Your task to perform on an android device: Add razer huntsman to the cart on ebay Image 0: 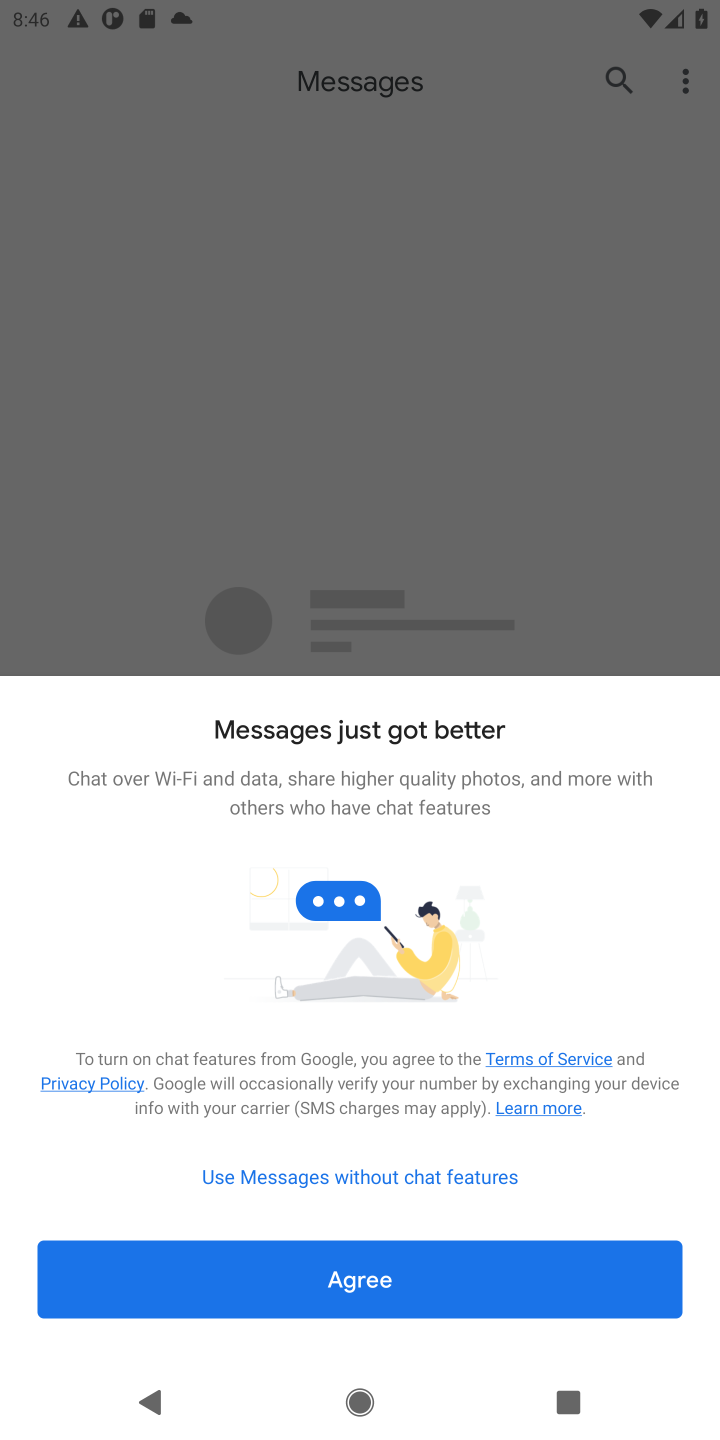
Step 0: press home button
Your task to perform on an android device: Add razer huntsman to the cart on ebay Image 1: 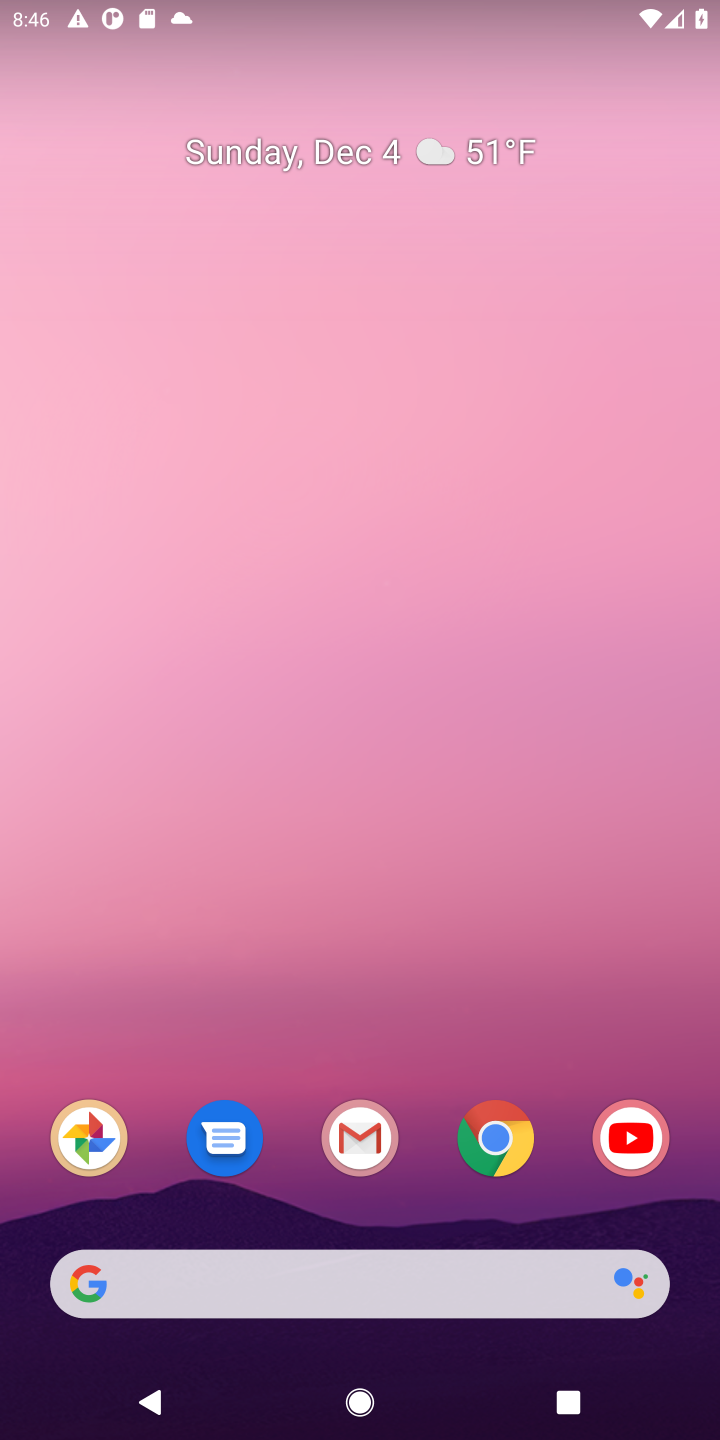
Step 1: click (484, 1151)
Your task to perform on an android device: Add razer huntsman to the cart on ebay Image 2: 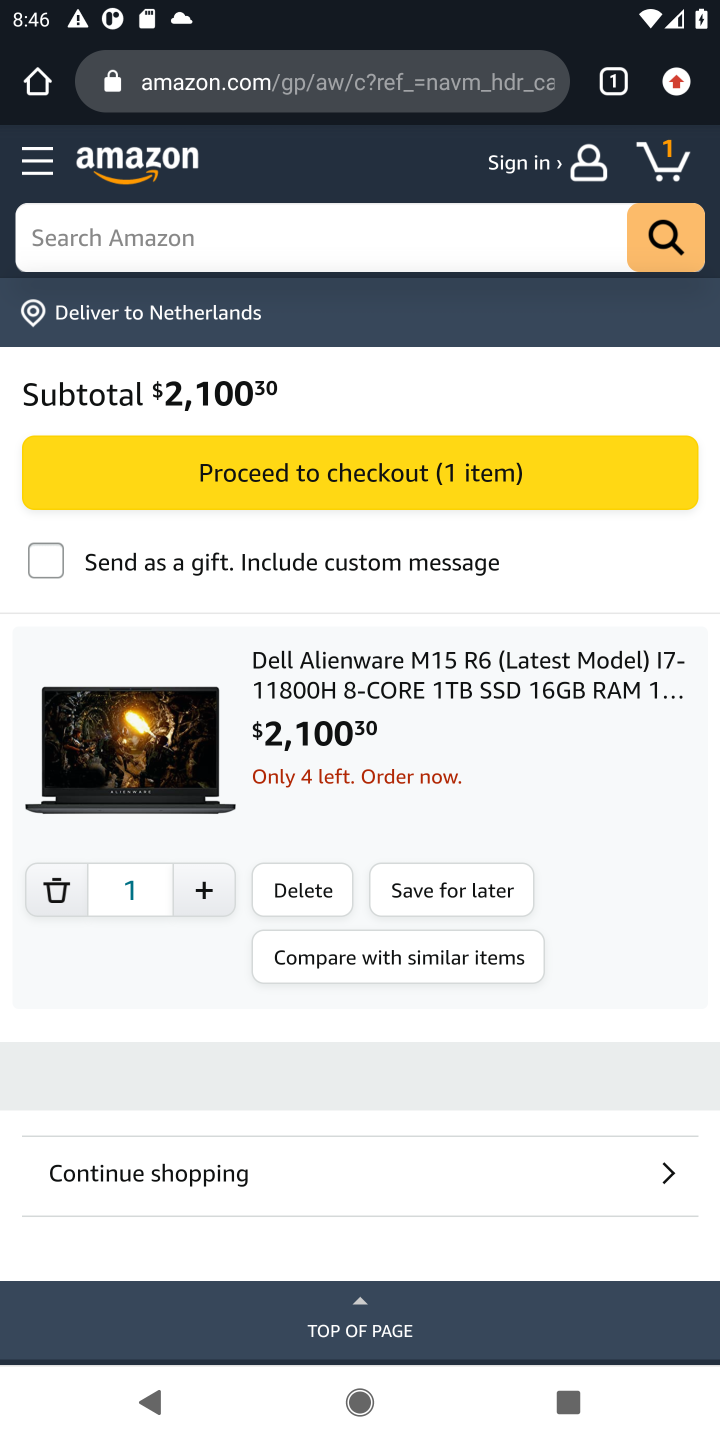
Step 2: click (341, 64)
Your task to perform on an android device: Add razer huntsman to the cart on ebay Image 3: 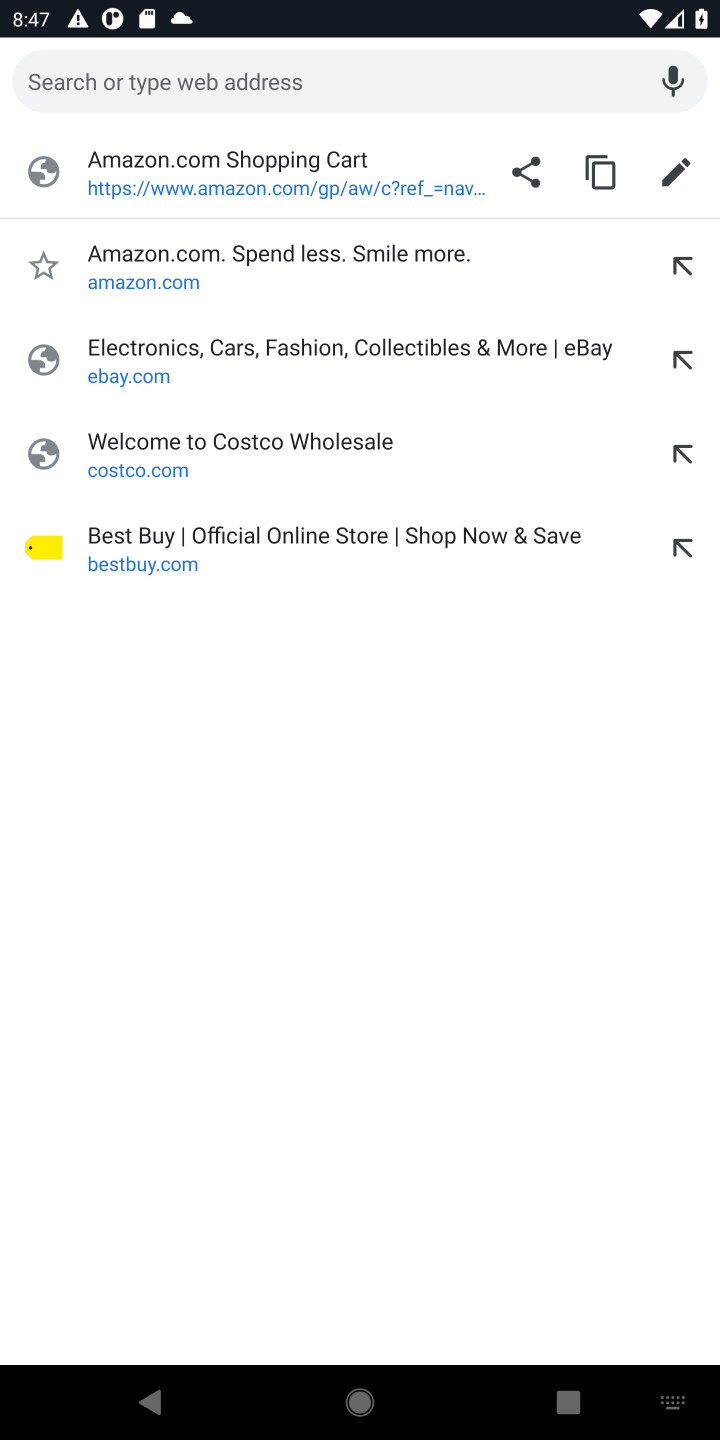
Step 3: press enter
Your task to perform on an android device: Add razer huntsman to the cart on ebay Image 4: 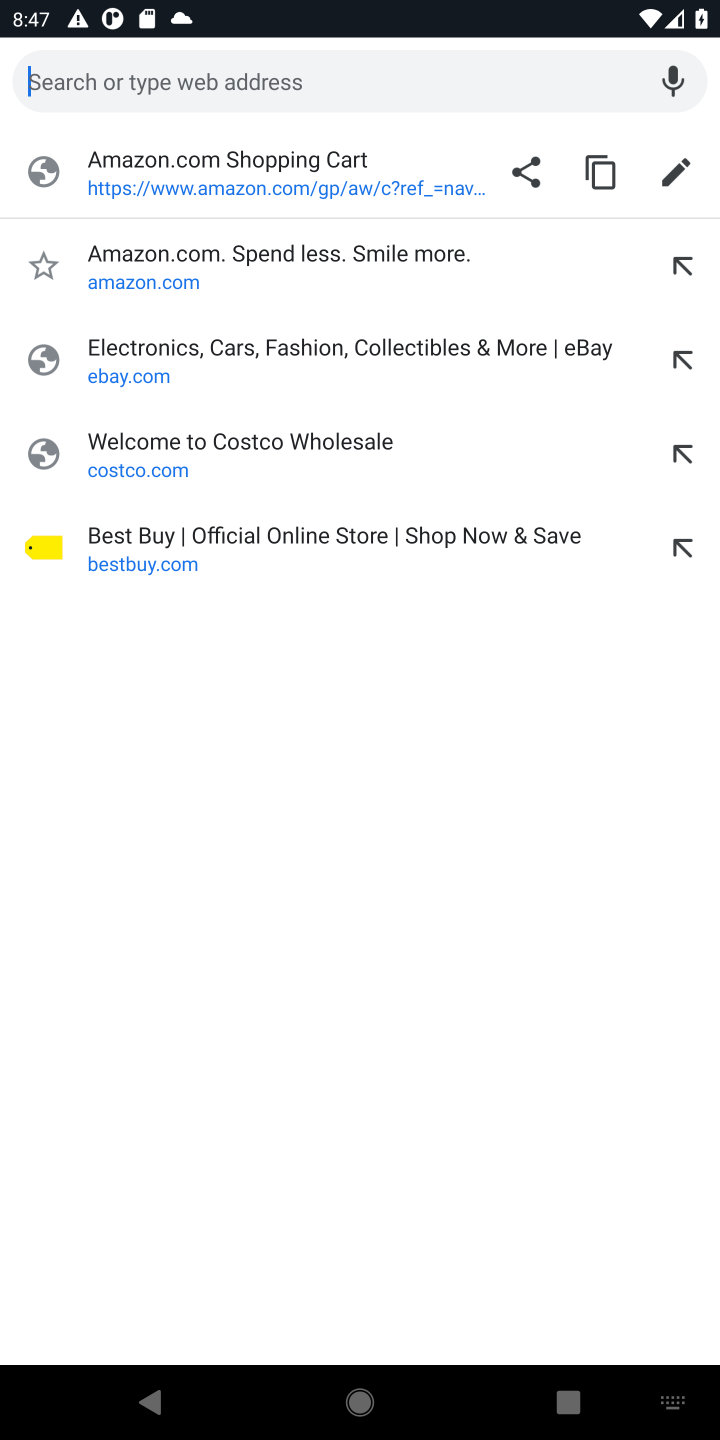
Step 4: type "ebay"
Your task to perform on an android device: Add razer huntsman to the cart on ebay Image 5: 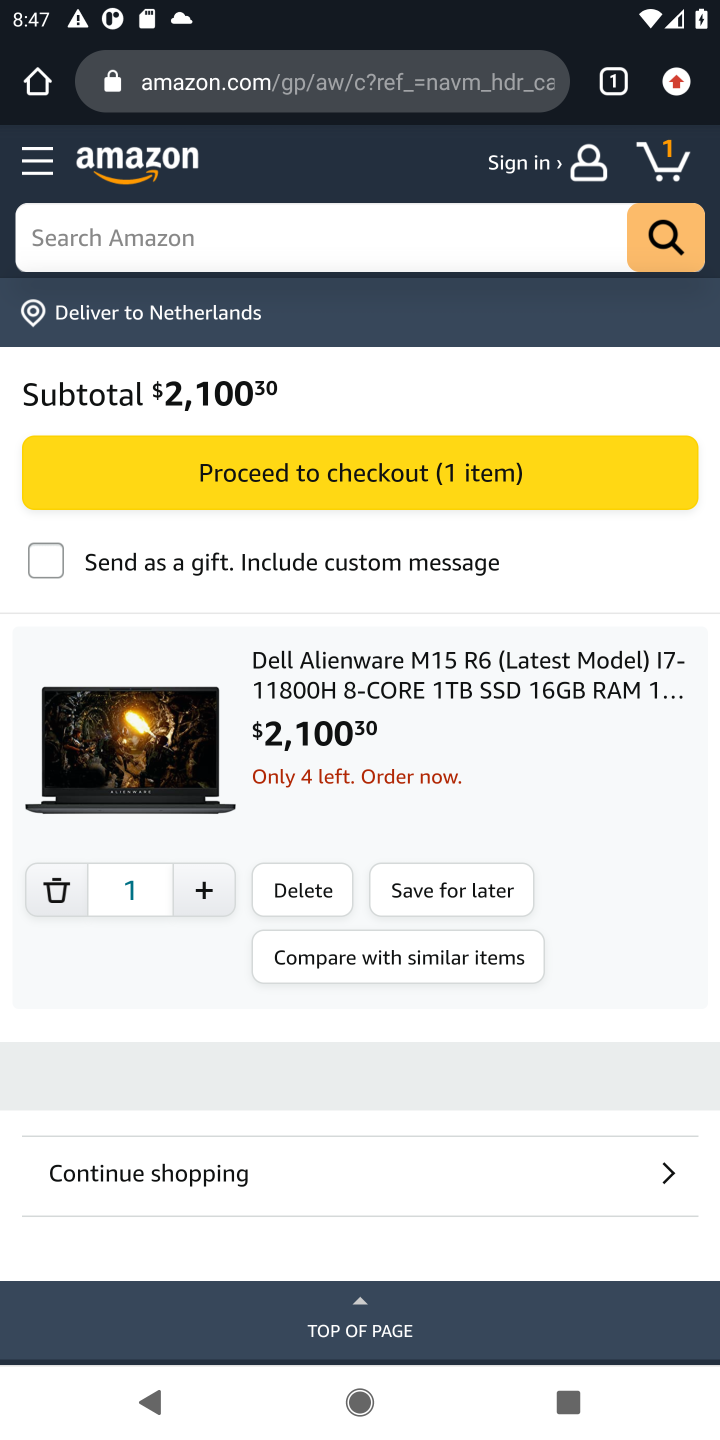
Step 5: click (424, 89)
Your task to perform on an android device: Add razer huntsman to the cart on ebay Image 6: 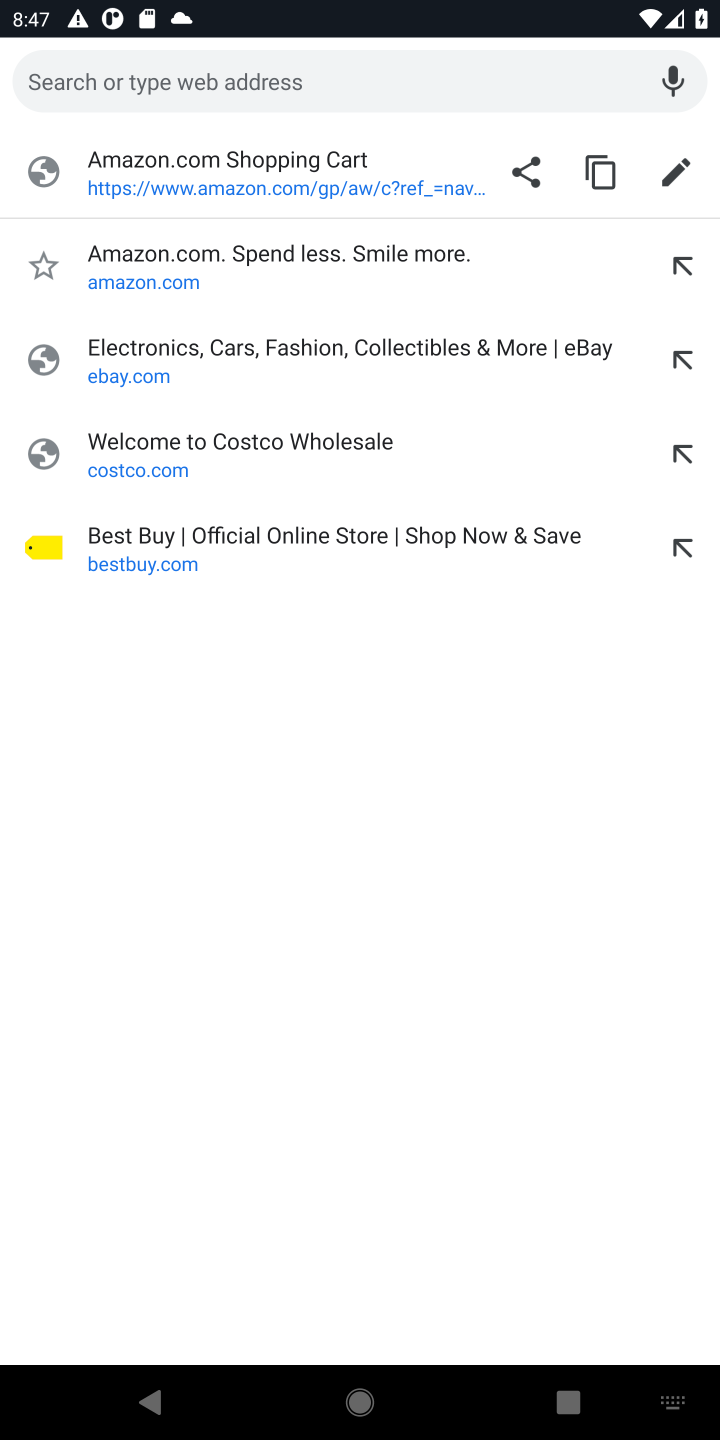
Step 6: click (218, 353)
Your task to perform on an android device: Add razer huntsman to the cart on ebay Image 7: 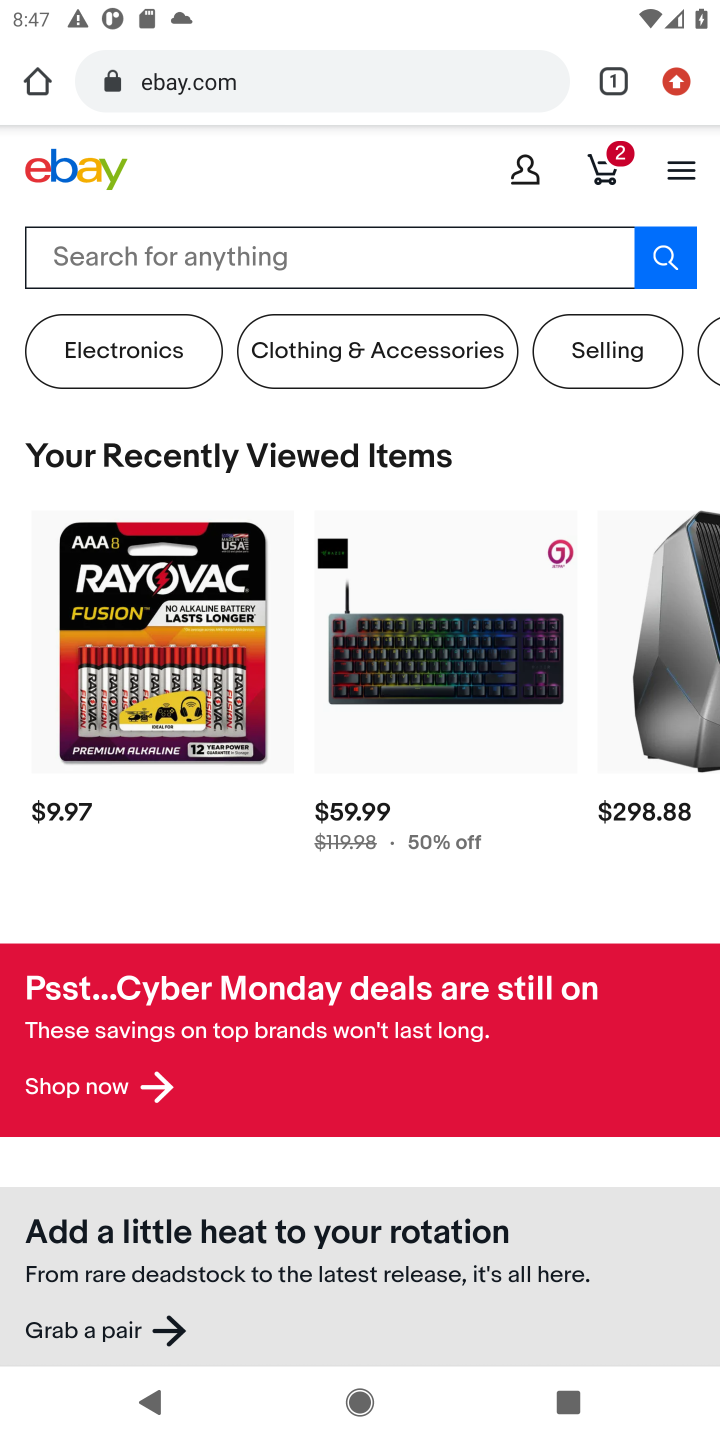
Step 7: click (470, 265)
Your task to perform on an android device: Add razer huntsman to the cart on ebay Image 8: 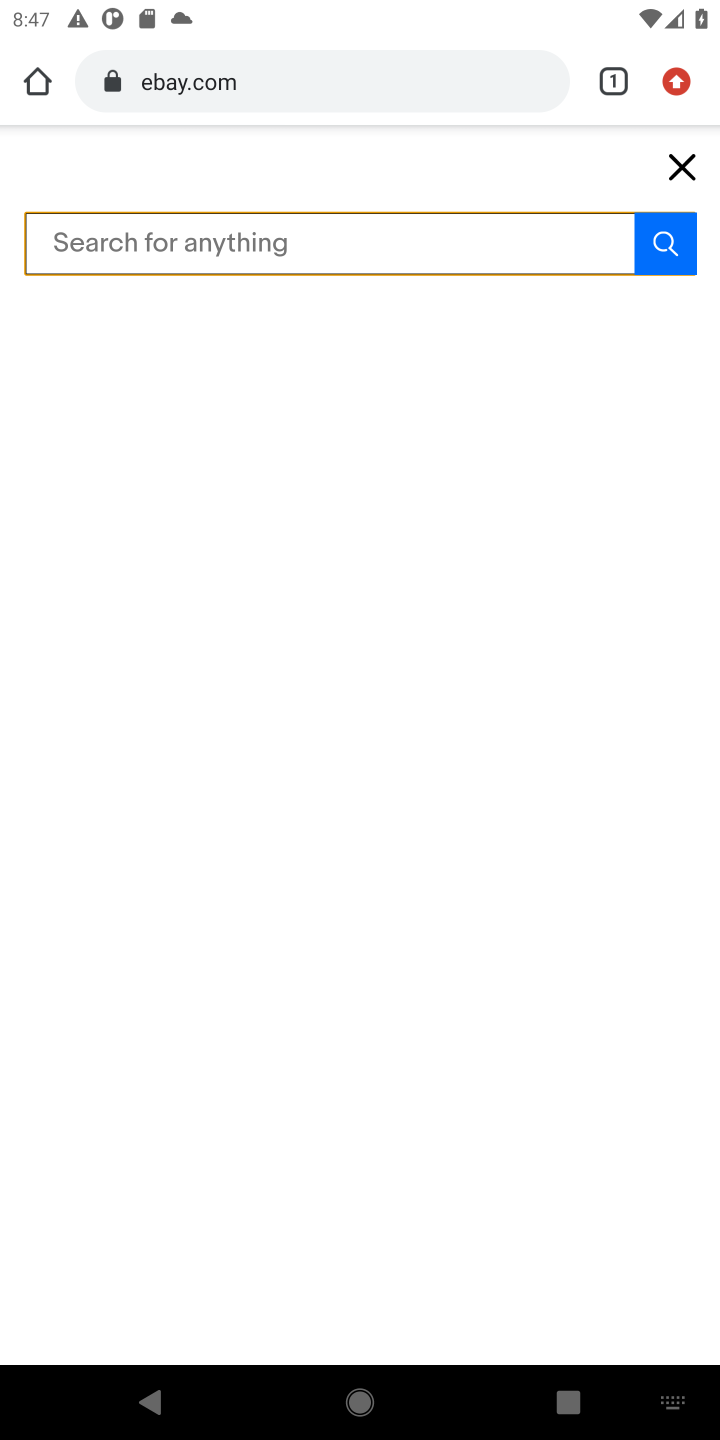
Step 8: type "razer huntsman"
Your task to perform on an android device: Add razer huntsman to the cart on ebay Image 9: 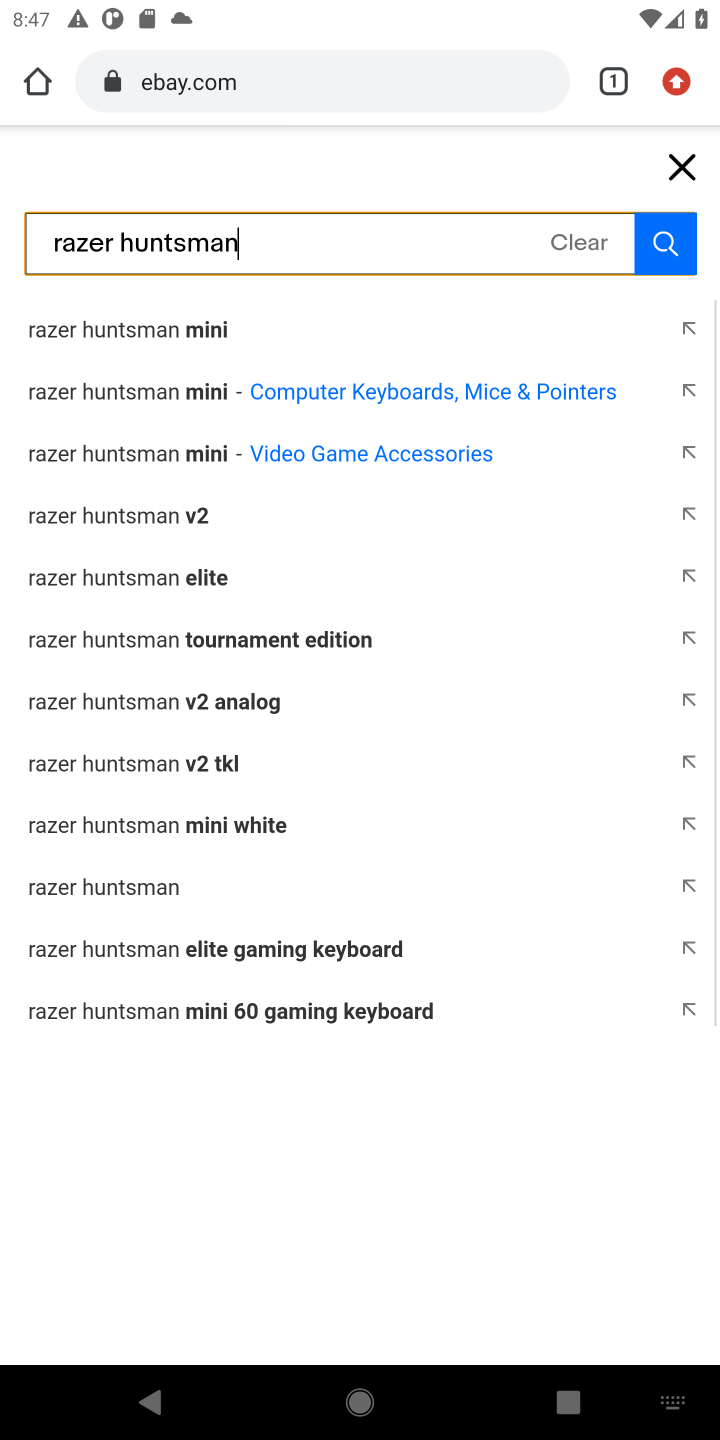
Step 9: press enter
Your task to perform on an android device: Add razer huntsman to the cart on ebay Image 10: 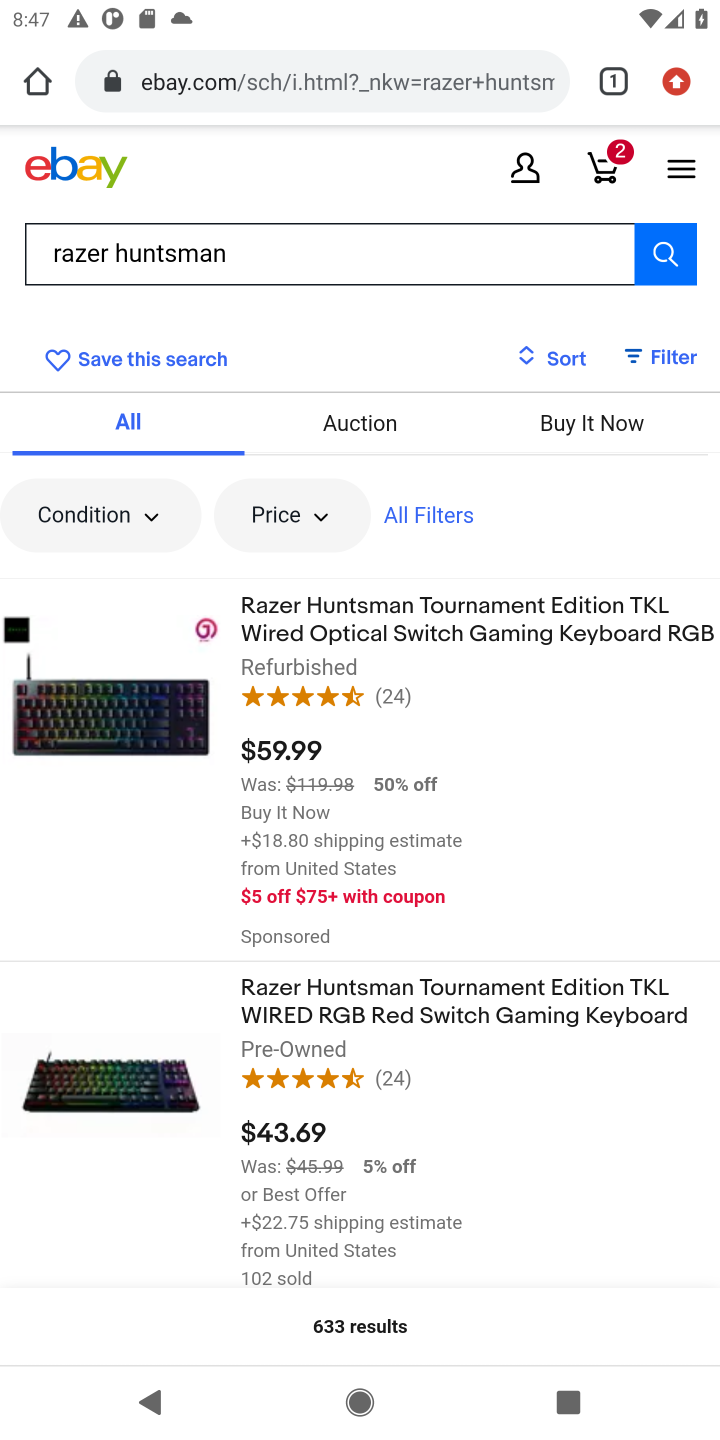
Step 10: click (164, 718)
Your task to perform on an android device: Add razer huntsman to the cart on ebay Image 11: 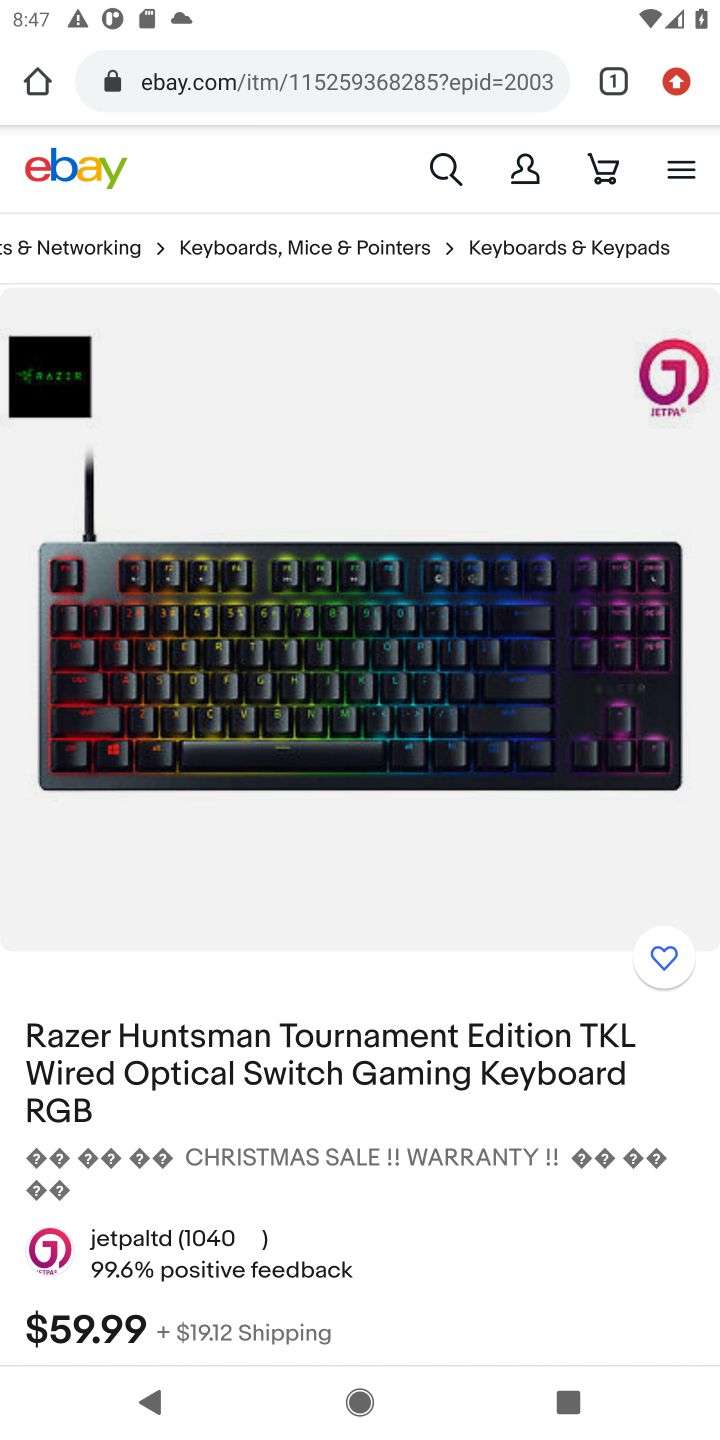
Step 11: drag from (490, 1106) to (586, 271)
Your task to perform on an android device: Add razer huntsman to the cart on ebay Image 12: 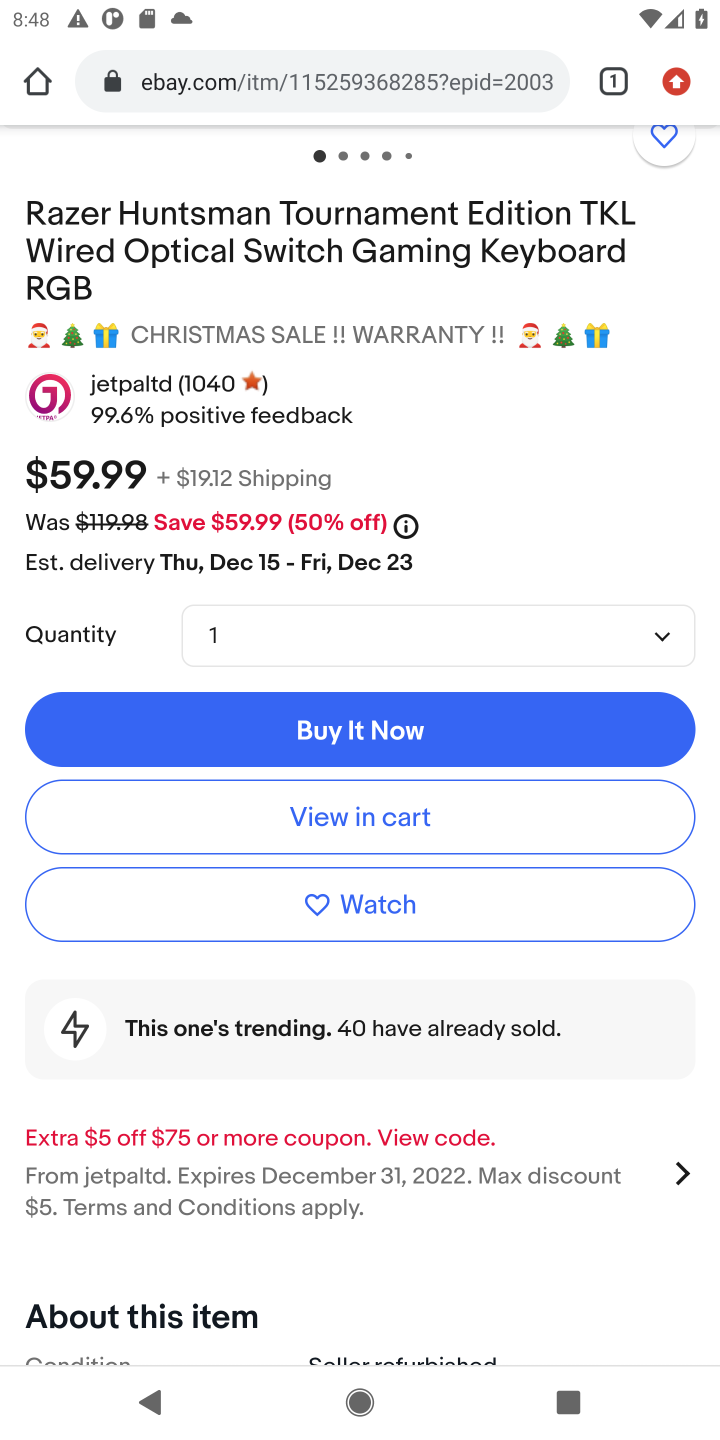
Step 12: press back button
Your task to perform on an android device: Add razer huntsman to the cart on ebay Image 13: 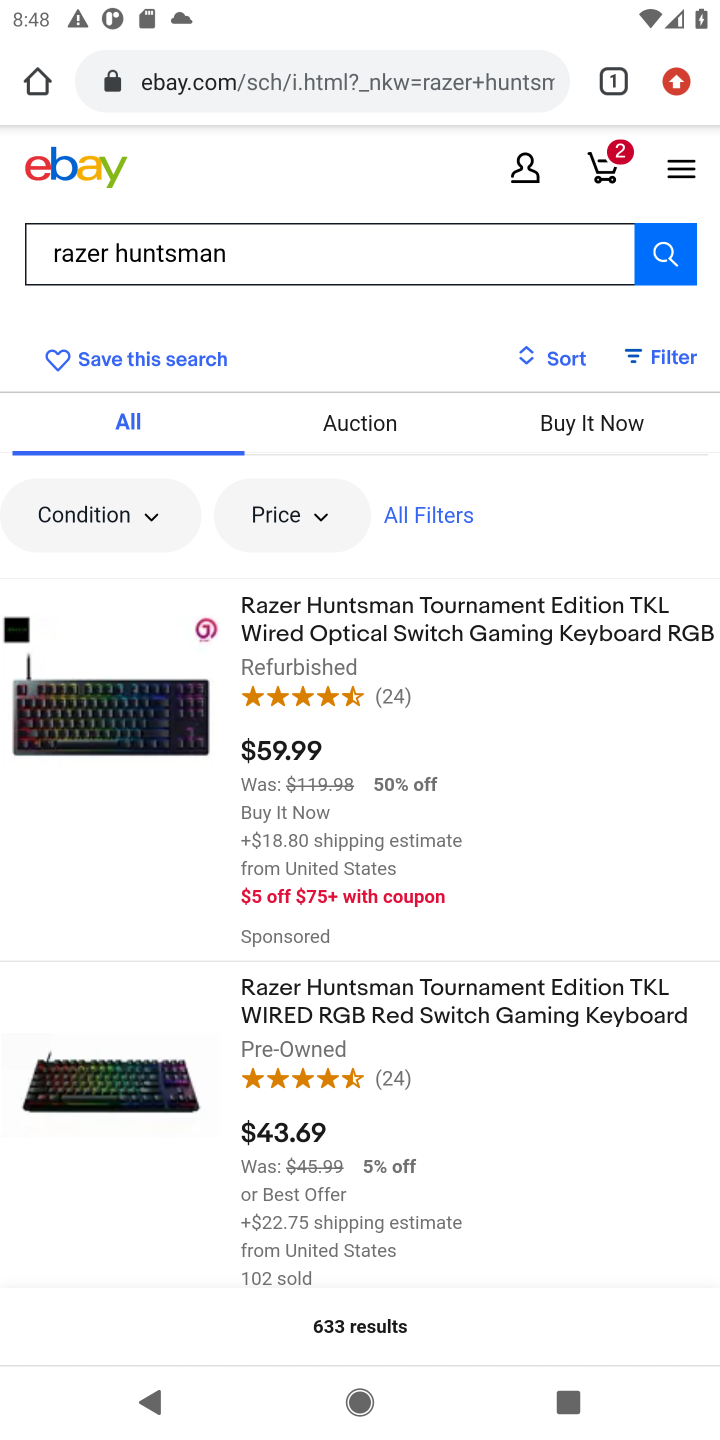
Step 13: click (102, 1066)
Your task to perform on an android device: Add razer huntsman to the cart on ebay Image 14: 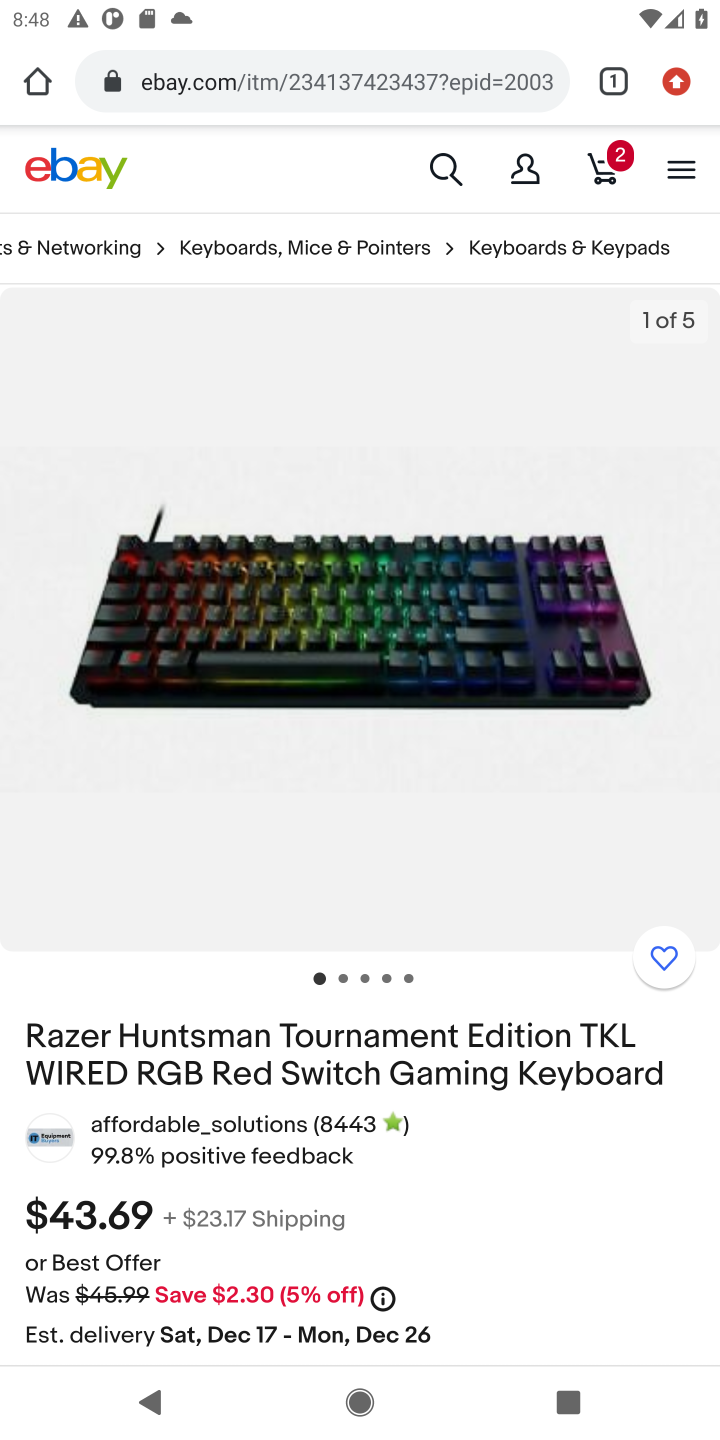
Step 14: drag from (567, 1118) to (520, 517)
Your task to perform on an android device: Add razer huntsman to the cart on ebay Image 15: 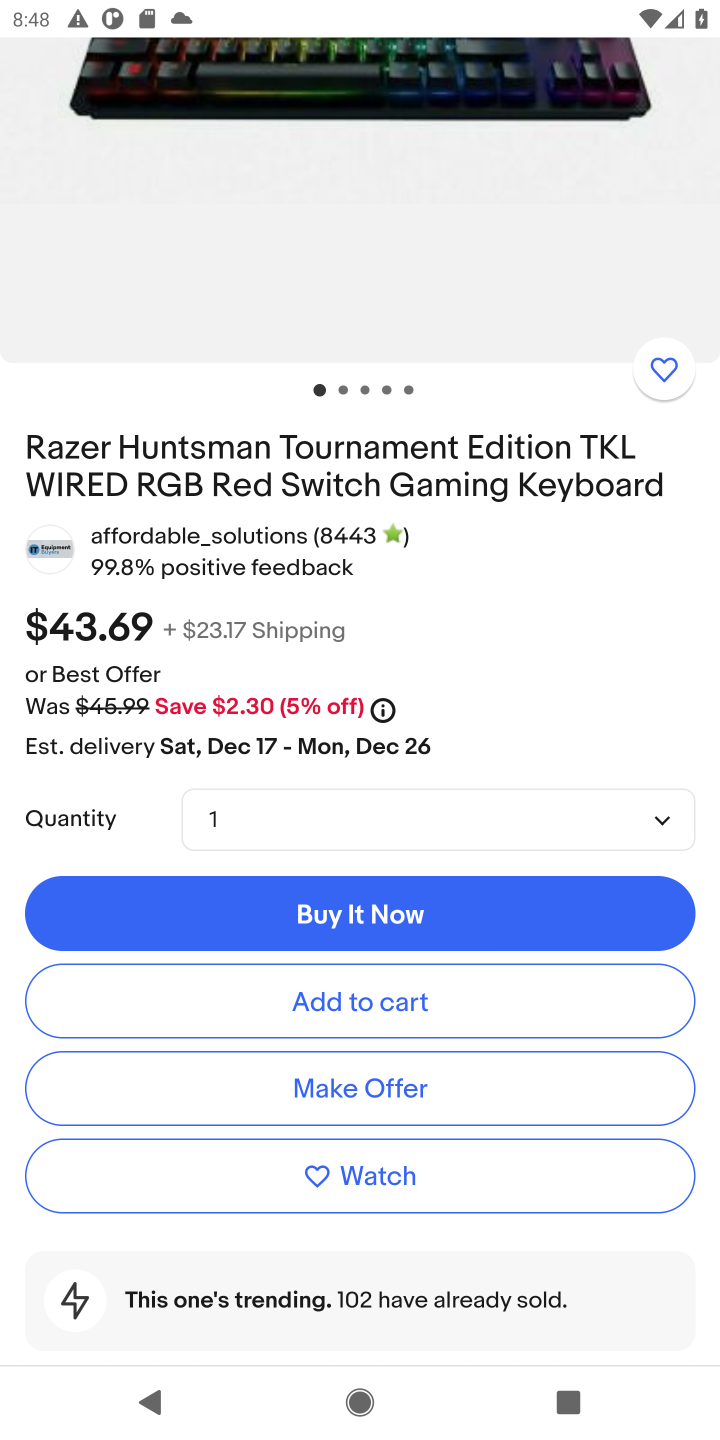
Step 15: click (431, 989)
Your task to perform on an android device: Add razer huntsman to the cart on ebay Image 16: 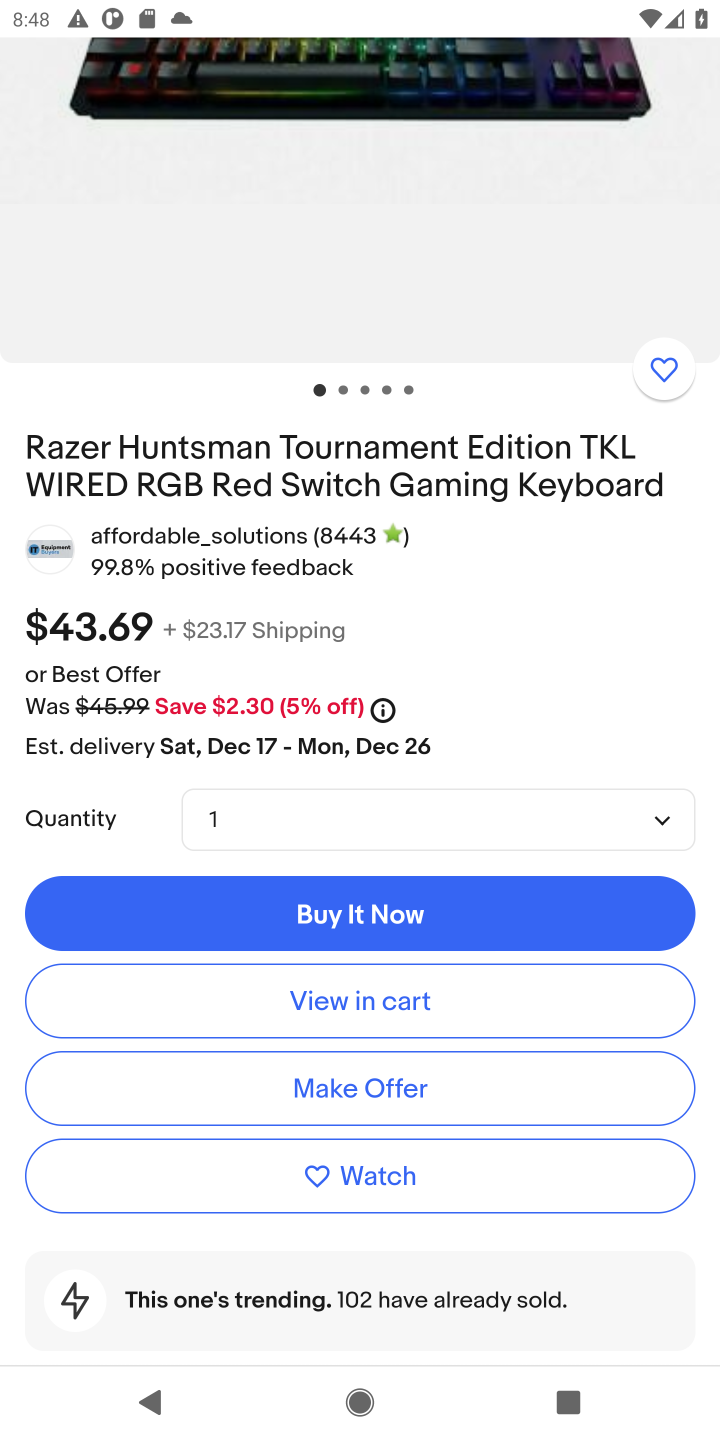
Step 16: click (431, 989)
Your task to perform on an android device: Add razer huntsman to the cart on ebay Image 17: 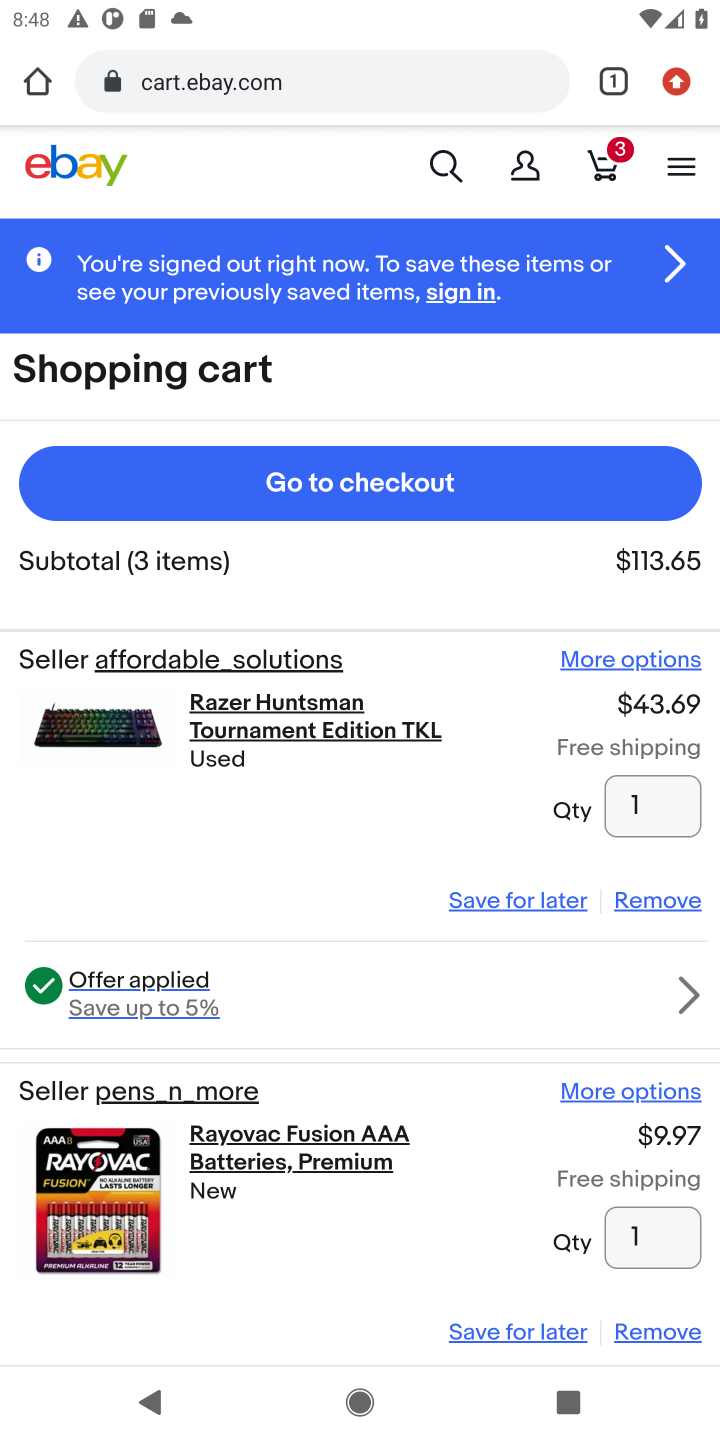
Step 17: task complete